Your task to perform on an android device: install app "Google Sheets" Image 0: 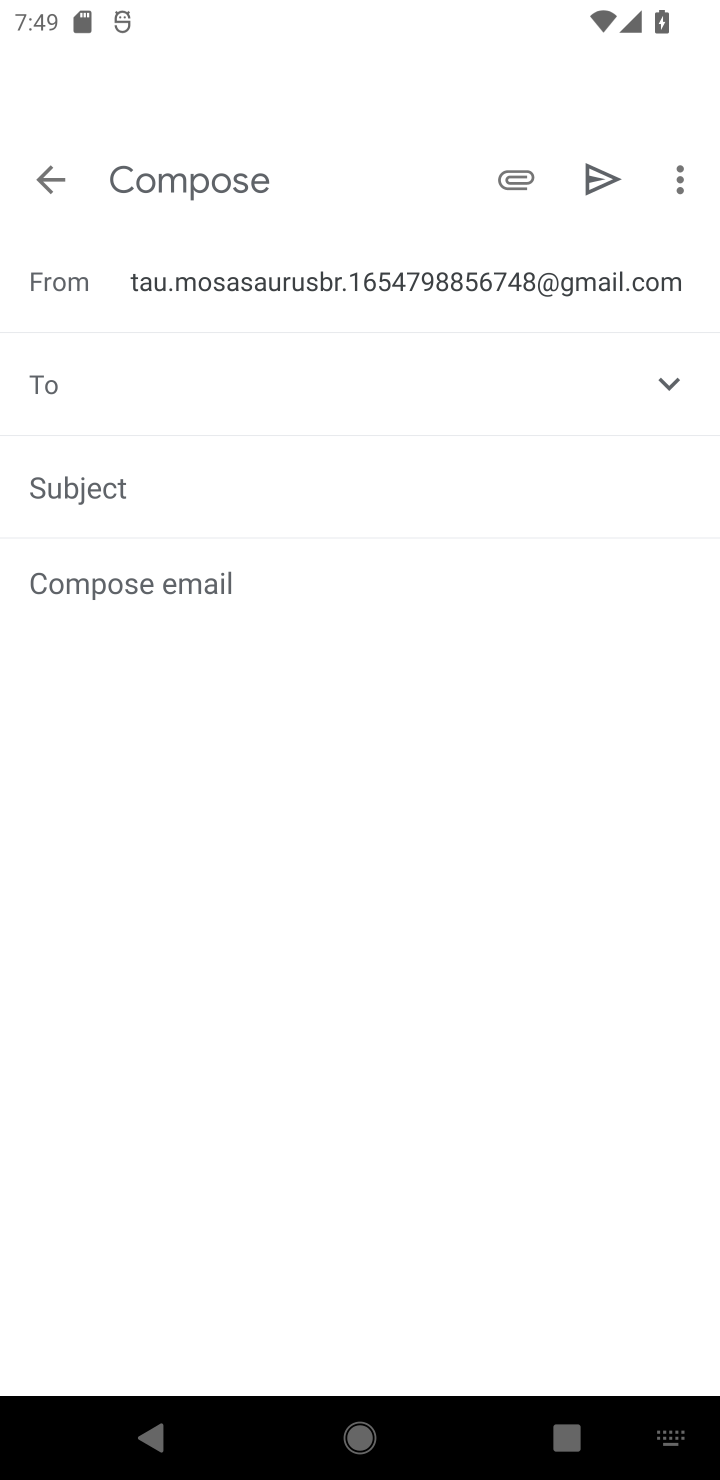
Step 0: press home button
Your task to perform on an android device: install app "Google Sheets" Image 1: 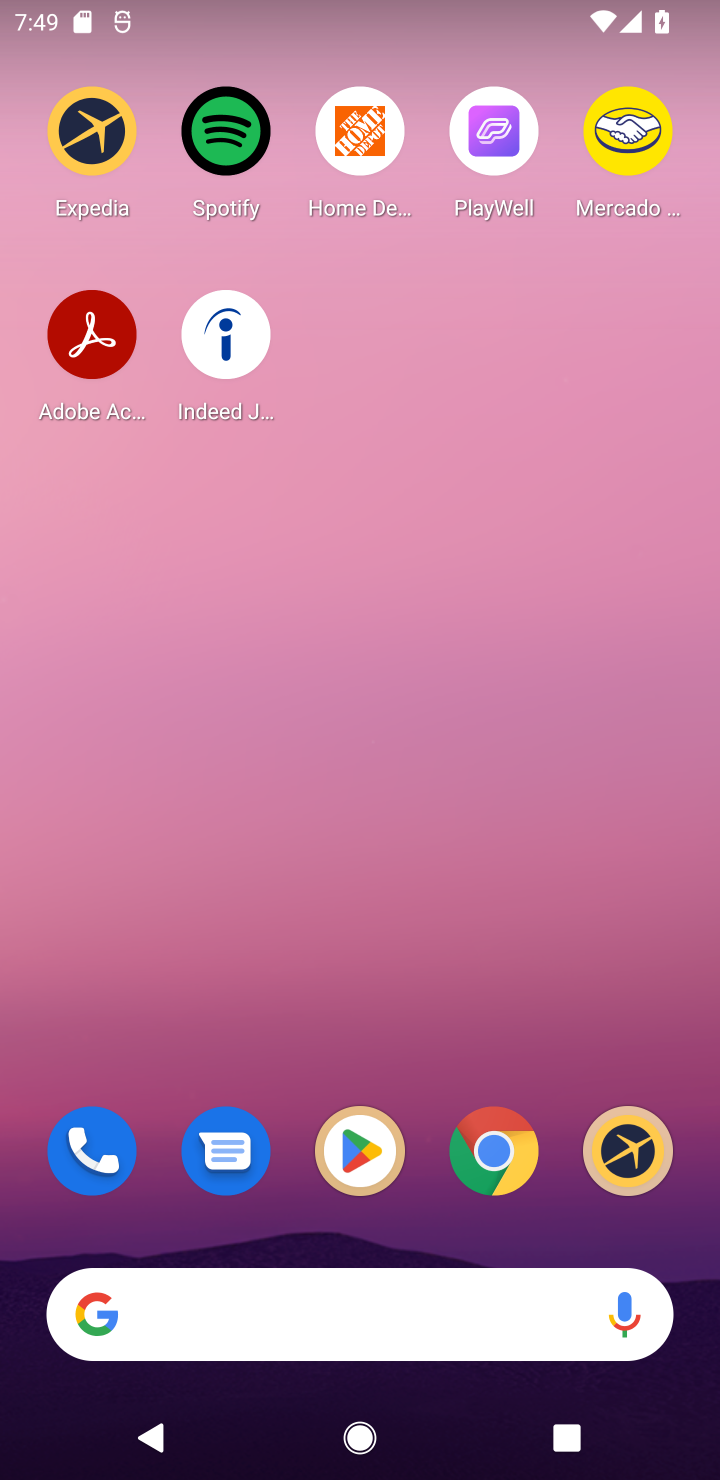
Step 1: click (366, 1155)
Your task to perform on an android device: install app "Google Sheets" Image 2: 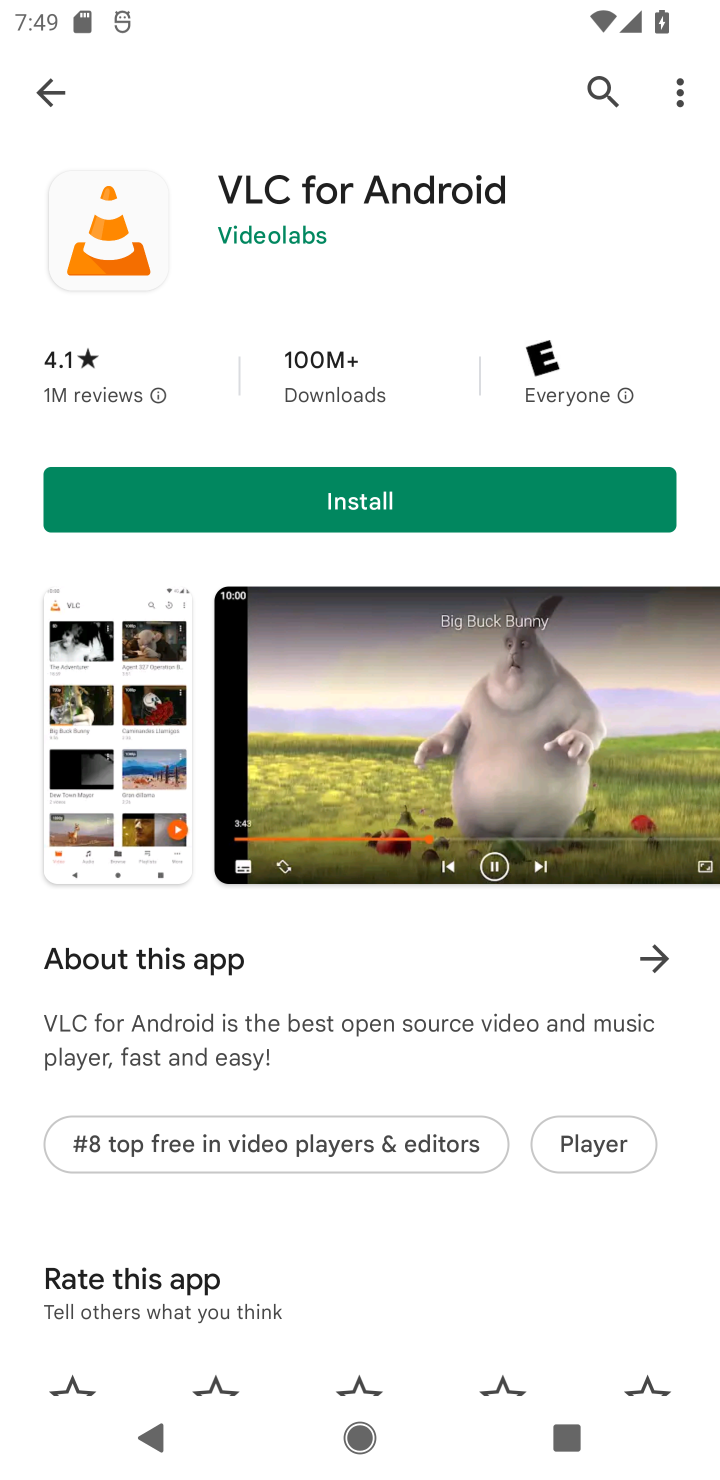
Step 2: click (593, 85)
Your task to perform on an android device: install app "Google Sheets" Image 3: 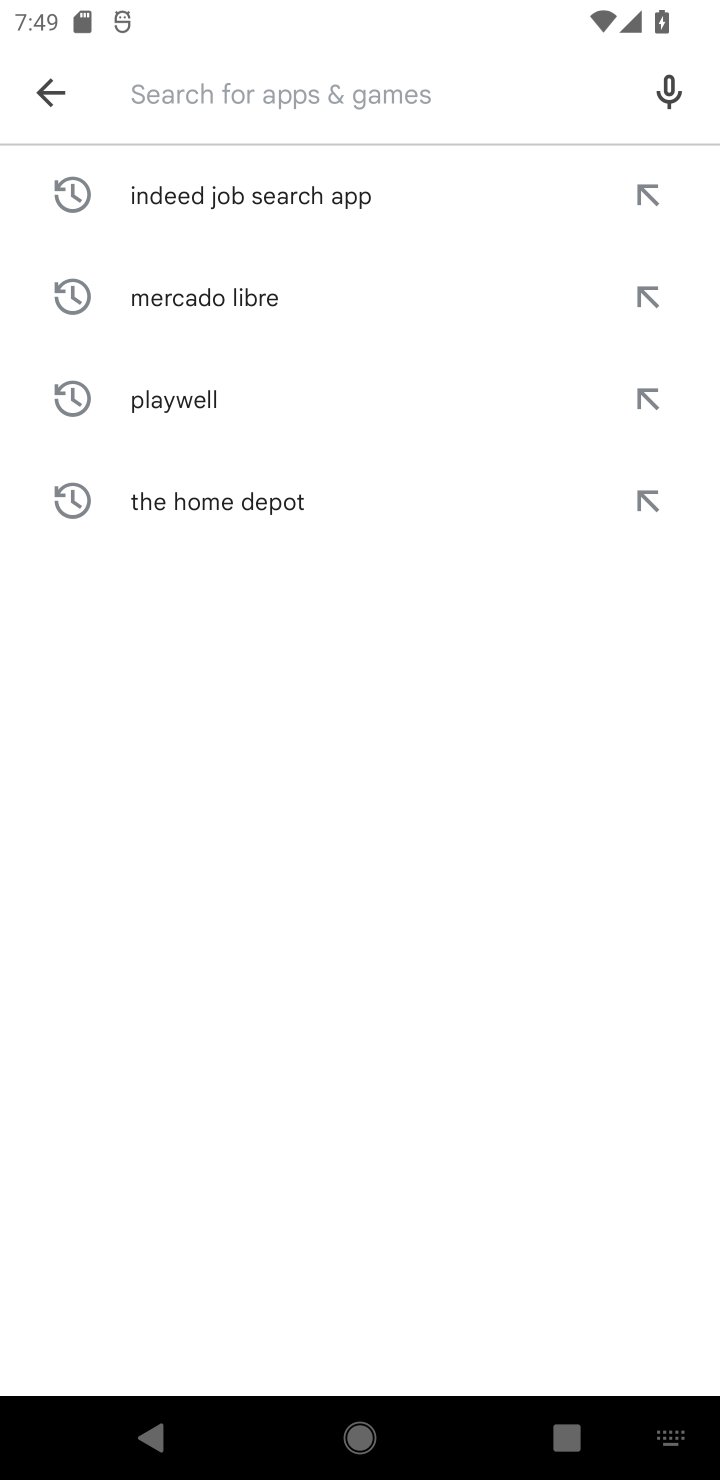
Step 3: type "Google Sheets"
Your task to perform on an android device: install app "Google Sheets" Image 4: 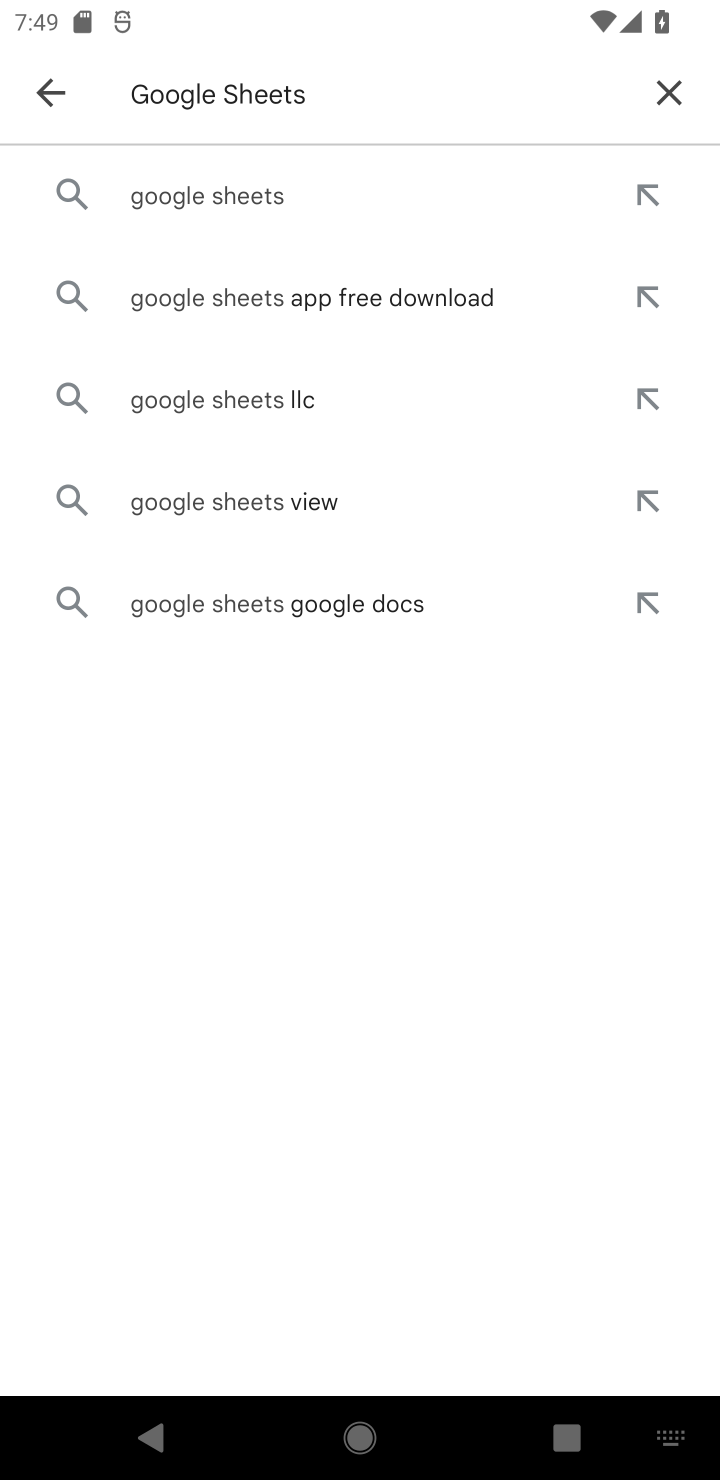
Step 4: click (210, 195)
Your task to perform on an android device: install app "Google Sheets" Image 5: 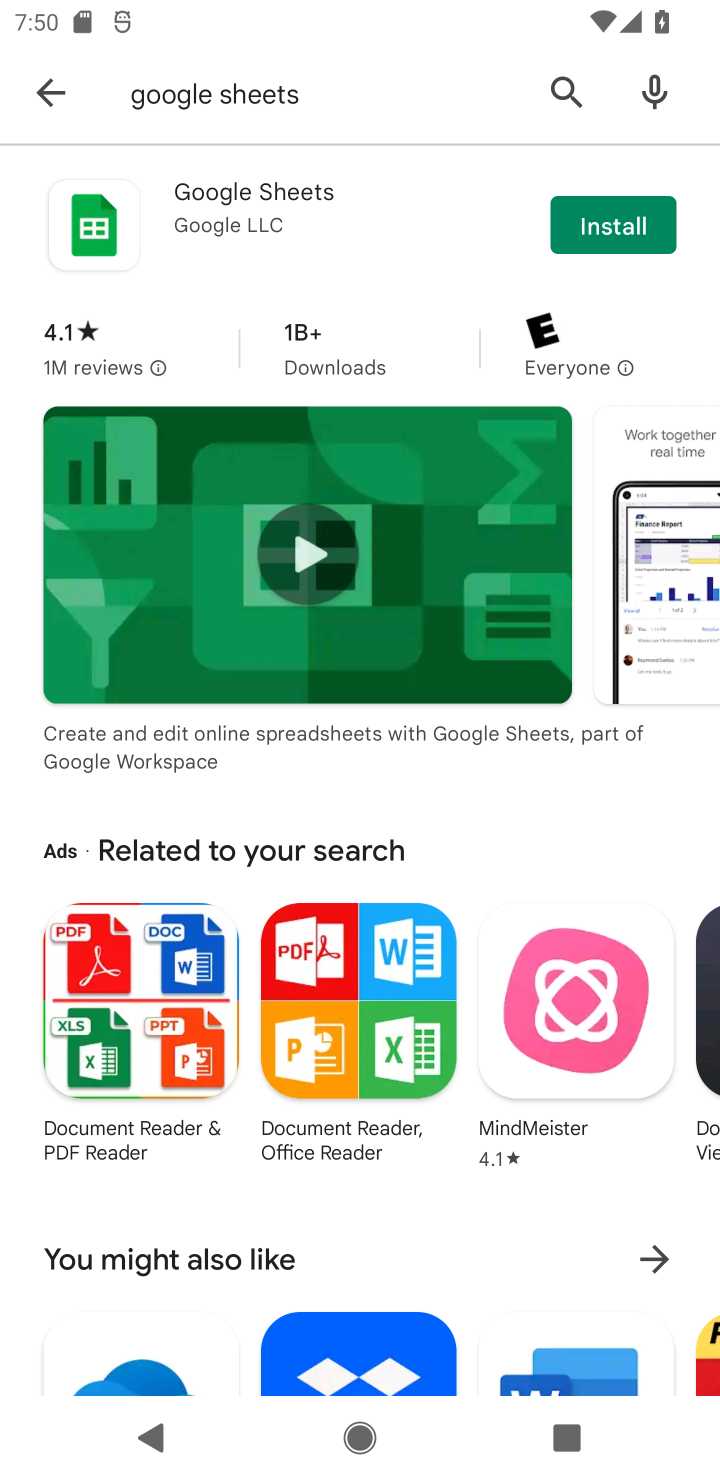
Step 5: click (240, 186)
Your task to perform on an android device: install app "Google Sheets" Image 6: 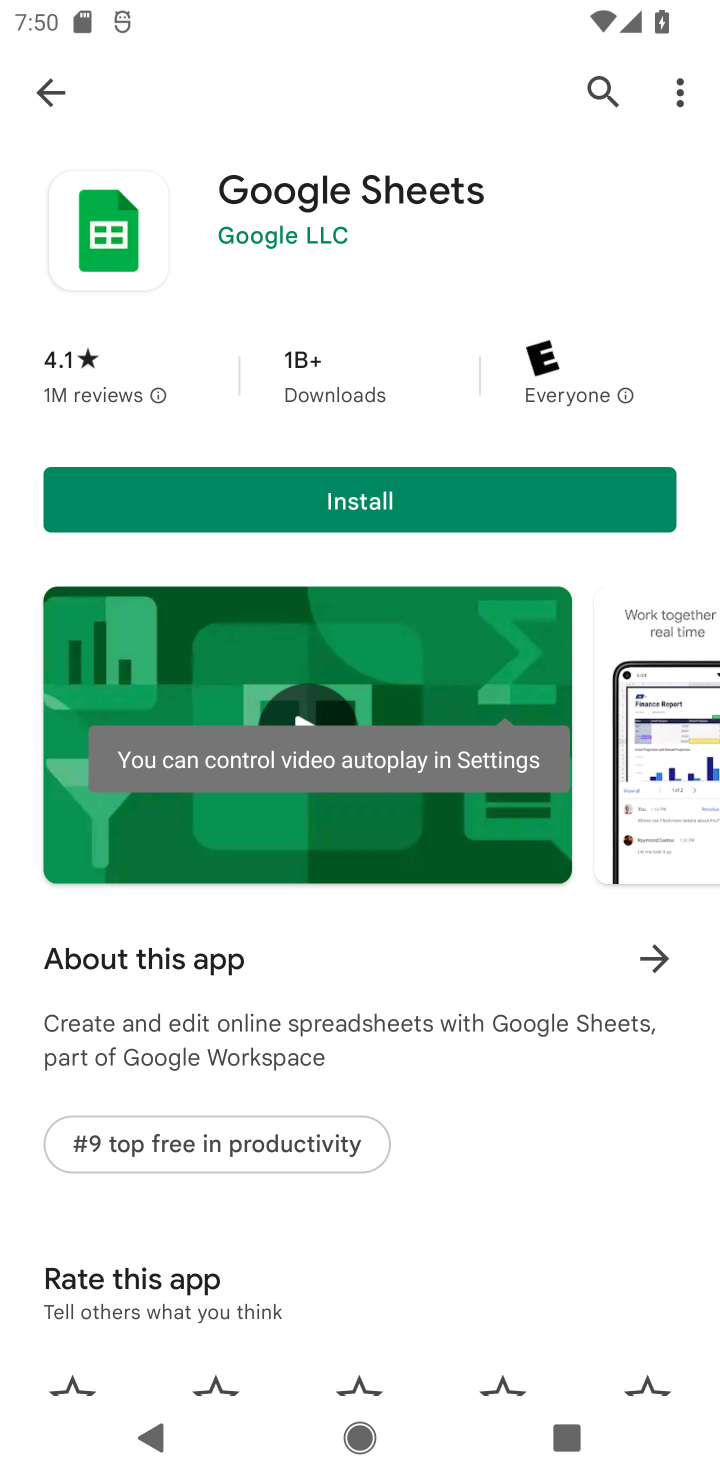
Step 6: click (364, 503)
Your task to perform on an android device: install app "Google Sheets" Image 7: 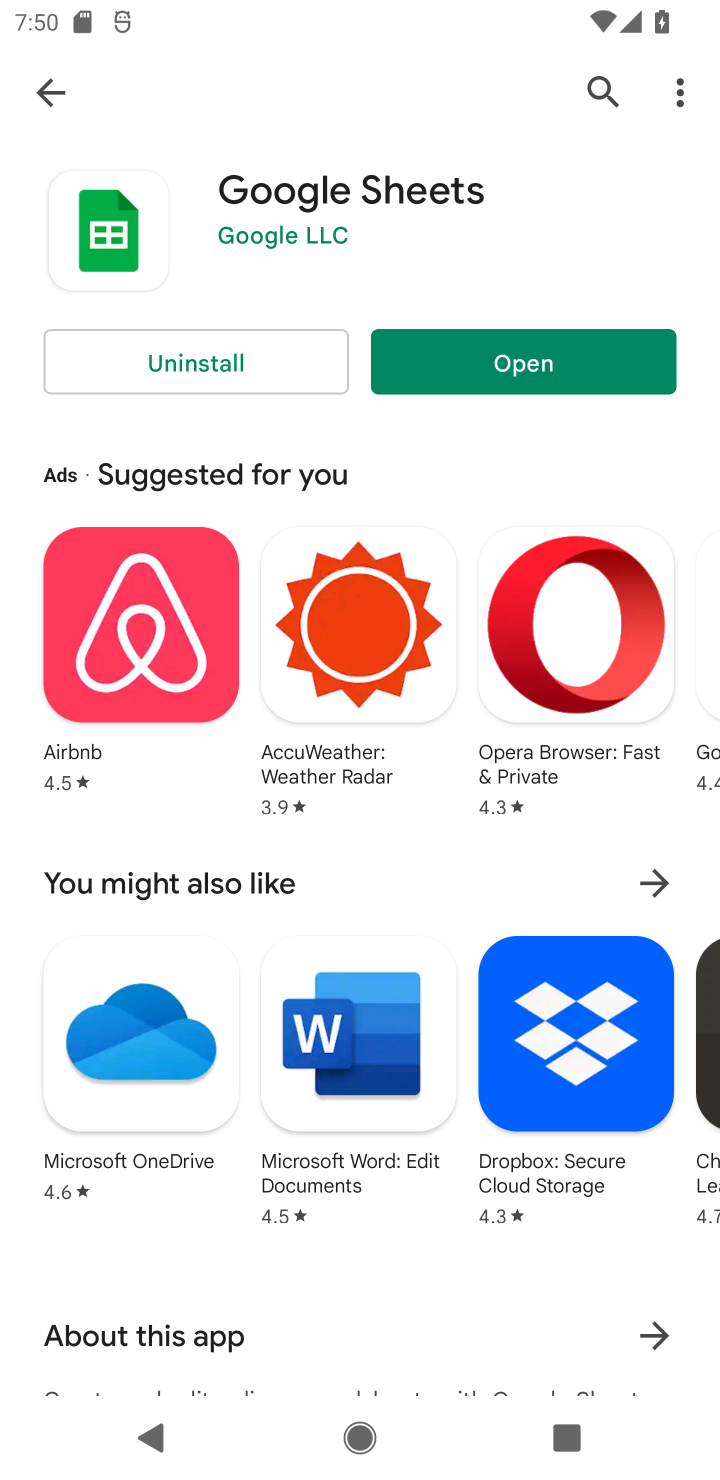
Step 7: task complete